Your task to perform on an android device: change the clock display to show seconds Image 0: 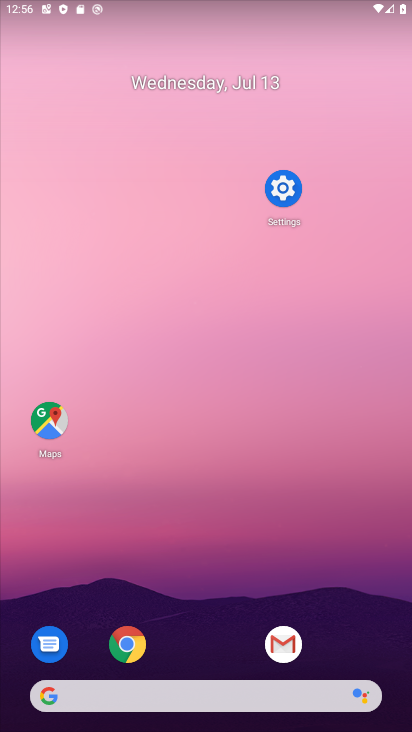
Step 0: press home button
Your task to perform on an android device: change the clock display to show seconds Image 1: 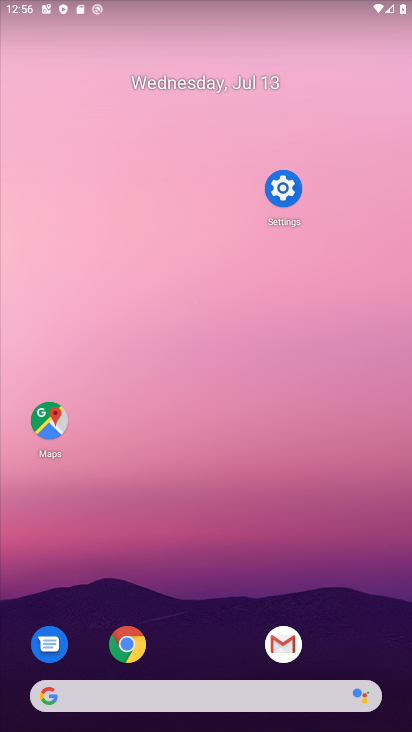
Step 1: drag from (273, 699) to (295, 52)
Your task to perform on an android device: change the clock display to show seconds Image 2: 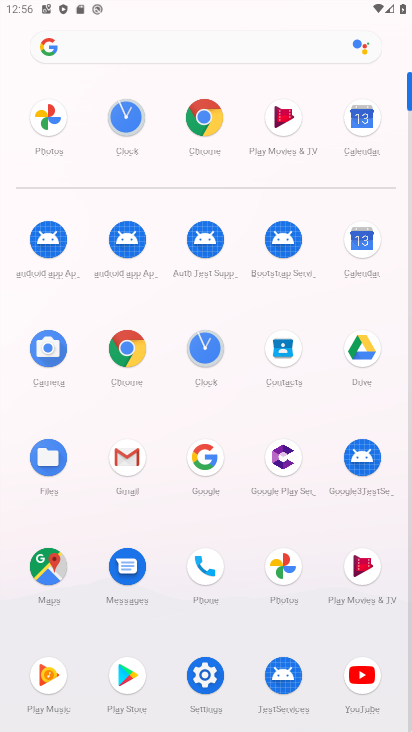
Step 2: click (215, 344)
Your task to perform on an android device: change the clock display to show seconds Image 3: 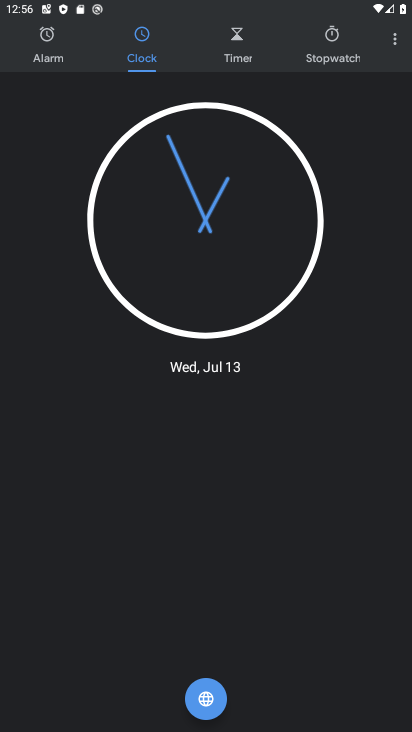
Step 3: click (383, 36)
Your task to perform on an android device: change the clock display to show seconds Image 4: 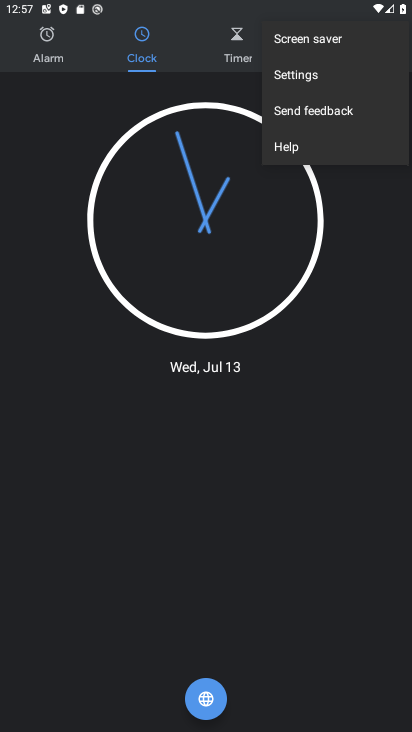
Step 4: click (306, 80)
Your task to perform on an android device: change the clock display to show seconds Image 5: 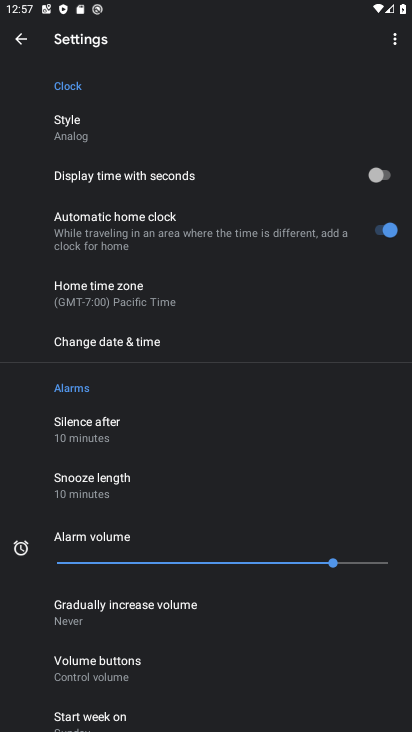
Step 5: click (117, 137)
Your task to perform on an android device: change the clock display to show seconds Image 6: 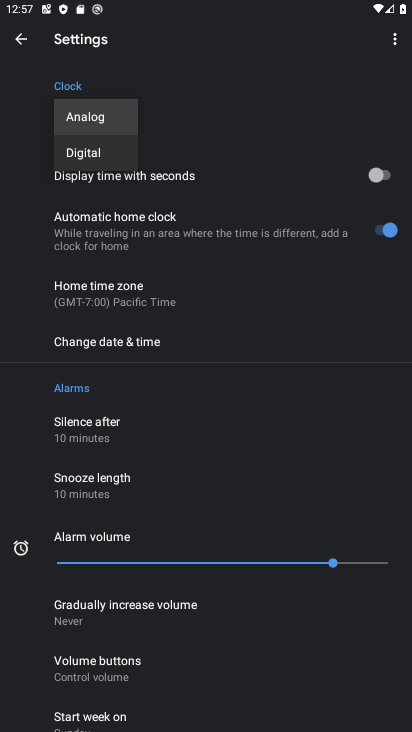
Step 6: click (92, 152)
Your task to perform on an android device: change the clock display to show seconds Image 7: 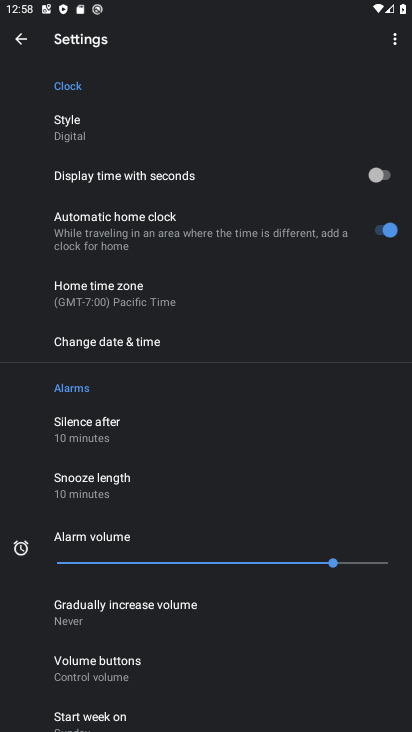
Step 7: task complete